Your task to perform on an android device: Go to wifi settings Image 0: 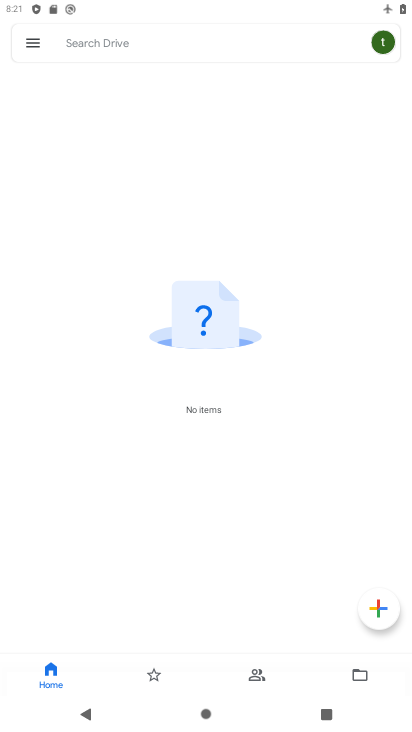
Step 0: press home button
Your task to perform on an android device: Go to wifi settings Image 1: 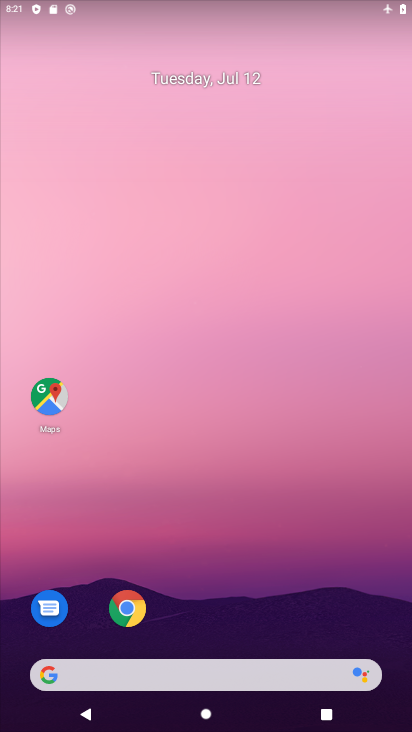
Step 1: drag from (204, 642) to (339, 35)
Your task to perform on an android device: Go to wifi settings Image 2: 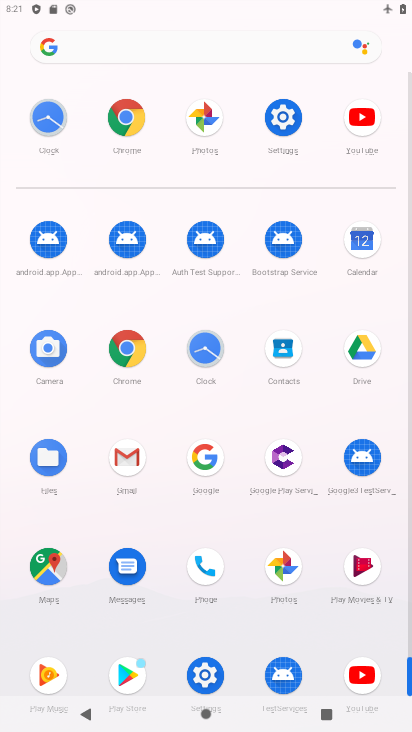
Step 2: click (285, 117)
Your task to perform on an android device: Go to wifi settings Image 3: 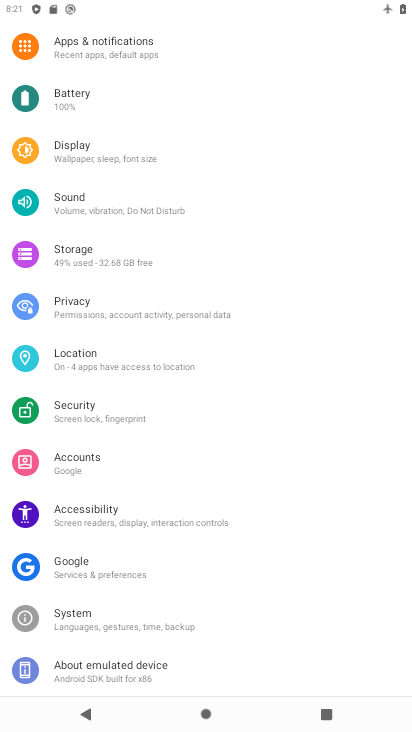
Step 3: drag from (135, 137) to (136, 561)
Your task to perform on an android device: Go to wifi settings Image 4: 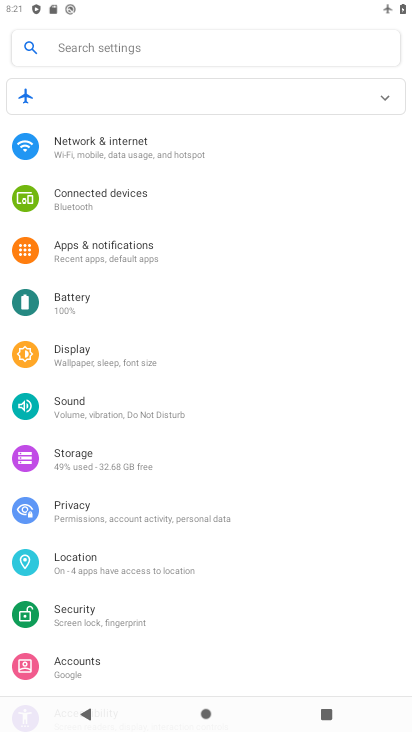
Step 4: click (109, 149)
Your task to perform on an android device: Go to wifi settings Image 5: 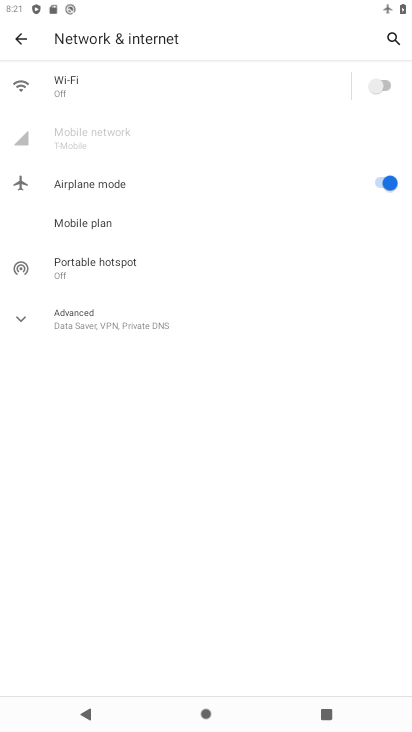
Step 5: click (90, 97)
Your task to perform on an android device: Go to wifi settings Image 6: 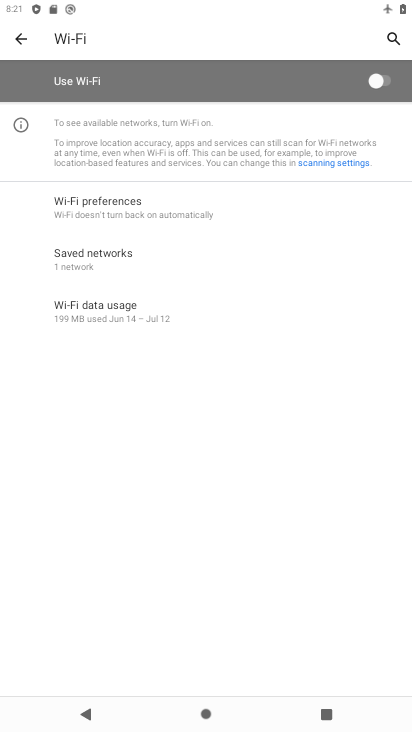
Step 6: task complete